Your task to perform on an android device: What's the weather going to be tomorrow? Image 0: 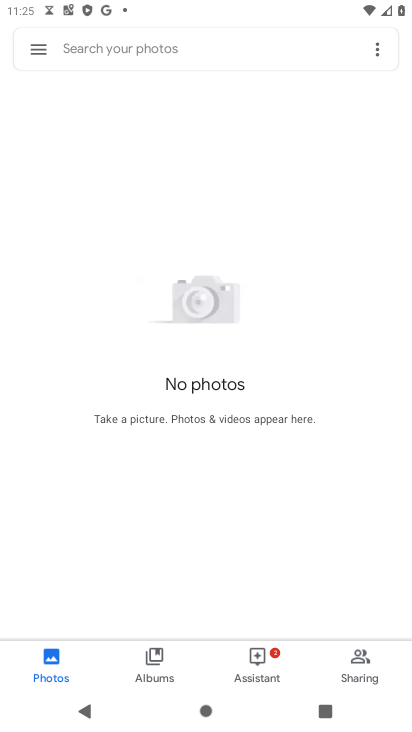
Step 0: press home button
Your task to perform on an android device: What's the weather going to be tomorrow? Image 1: 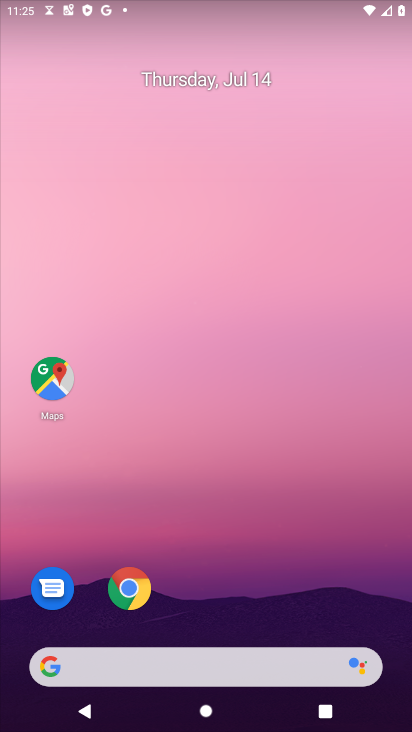
Step 1: click (133, 672)
Your task to perform on an android device: What's the weather going to be tomorrow? Image 2: 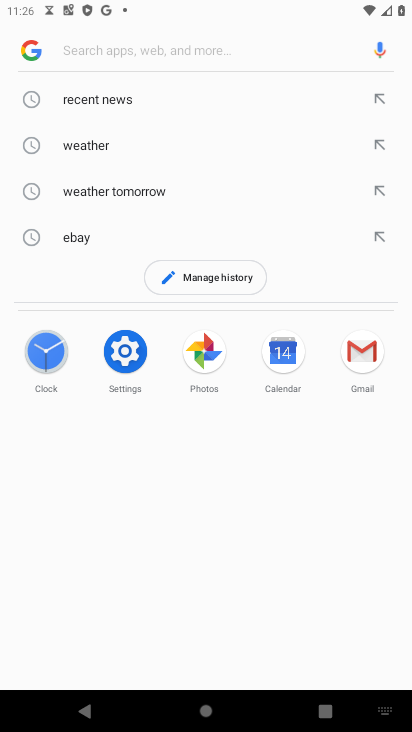
Step 2: click (91, 148)
Your task to perform on an android device: What's the weather going to be tomorrow? Image 3: 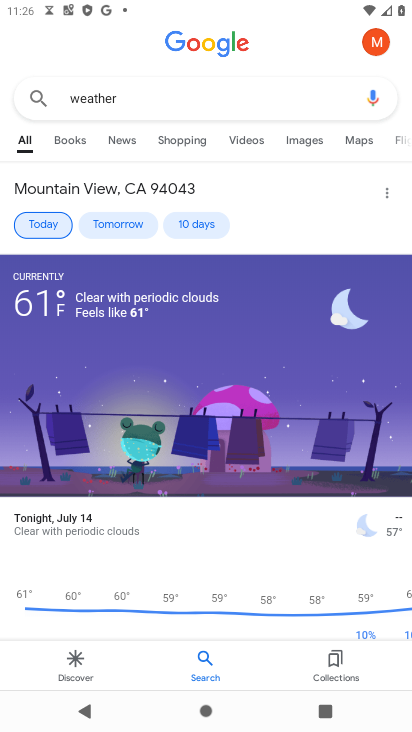
Step 3: click (131, 225)
Your task to perform on an android device: What's the weather going to be tomorrow? Image 4: 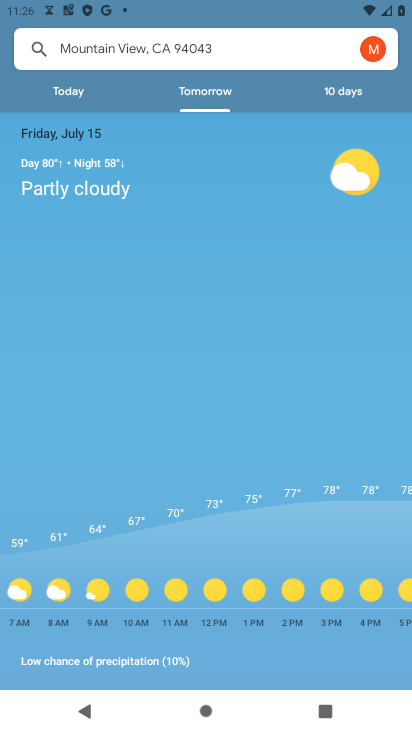
Step 4: task complete